Your task to perform on an android device: check google app version Image 0: 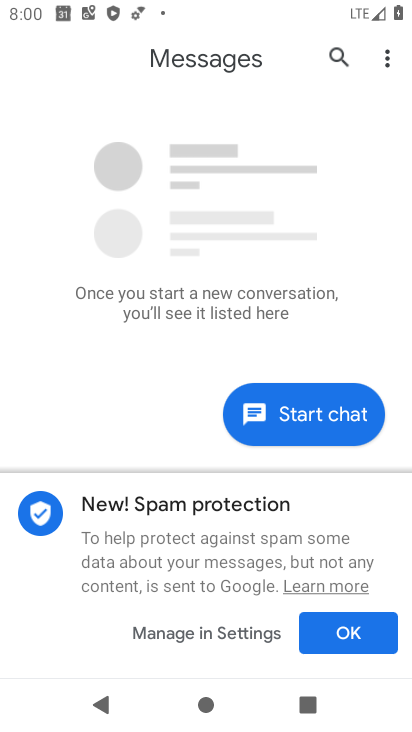
Step 0: press home button
Your task to perform on an android device: check google app version Image 1: 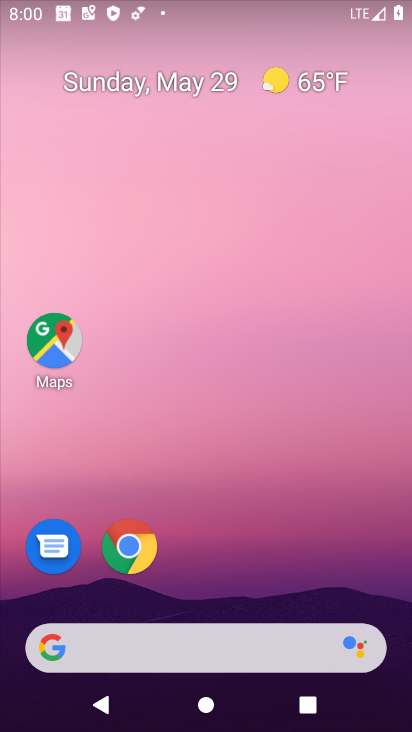
Step 1: drag from (125, 488) to (186, 161)
Your task to perform on an android device: check google app version Image 2: 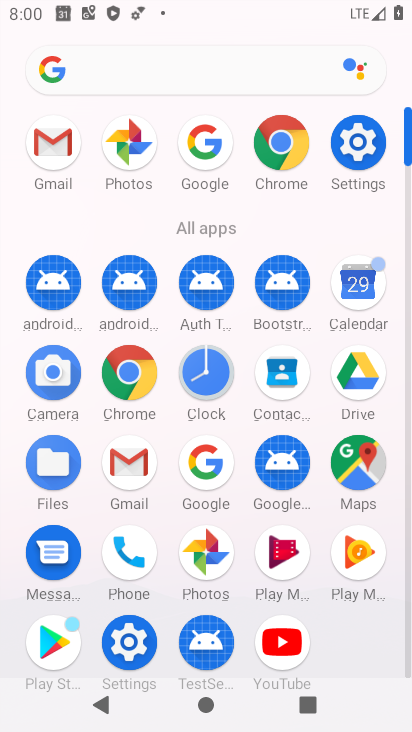
Step 2: click (211, 466)
Your task to perform on an android device: check google app version Image 3: 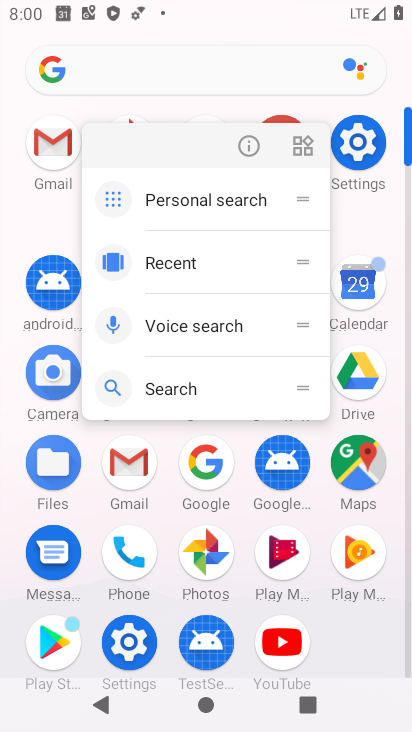
Step 3: click (257, 145)
Your task to perform on an android device: check google app version Image 4: 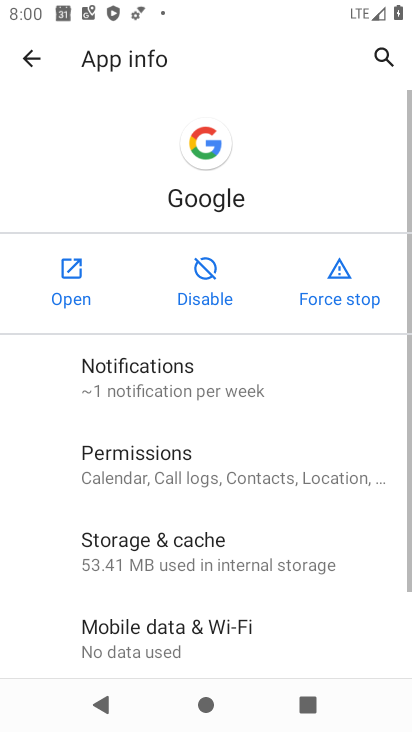
Step 4: drag from (214, 654) to (234, 195)
Your task to perform on an android device: check google app version Image 5: 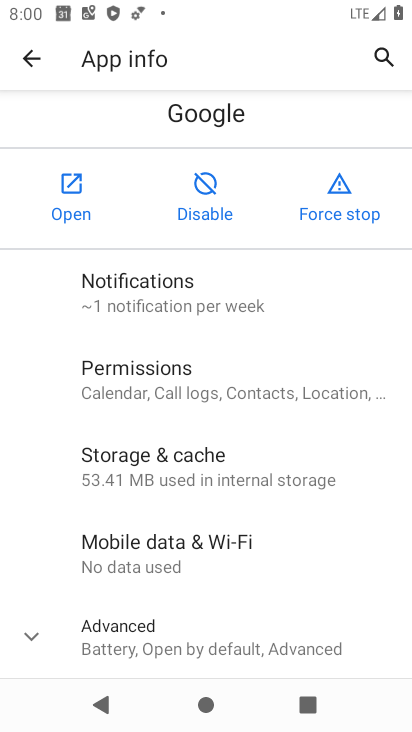
Step 5: click (165, 633)
Your task to perform on an android device: check google app version Image 6: 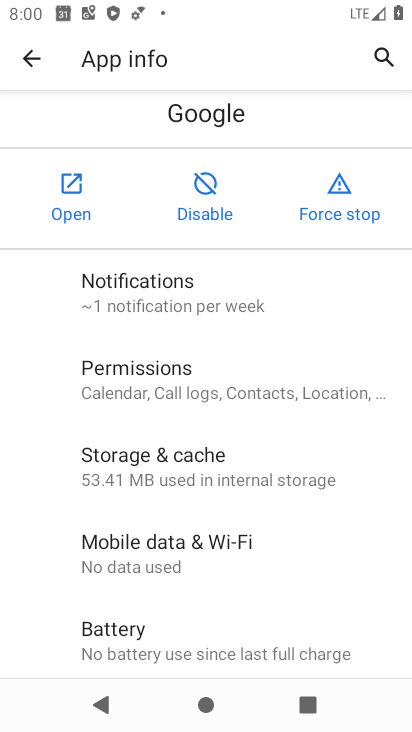
Step 6: task complete